Your task to perform on an android device: See recent photos Image 0: 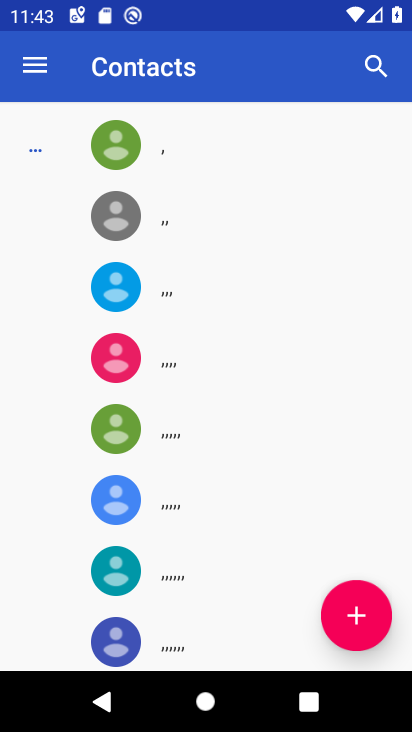
Step 0: press home button
Your task to perform on an android device: See recent photos Image 1: 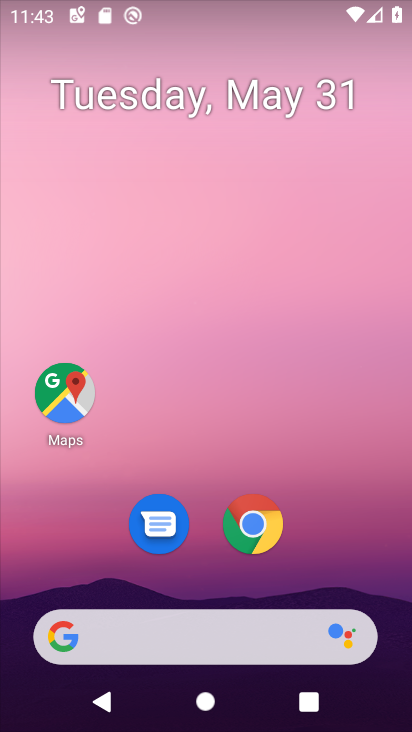
Step 1: drag from (334, 539) to (253, 76)
Your task to perform on an android device: See recent photos Image 2: 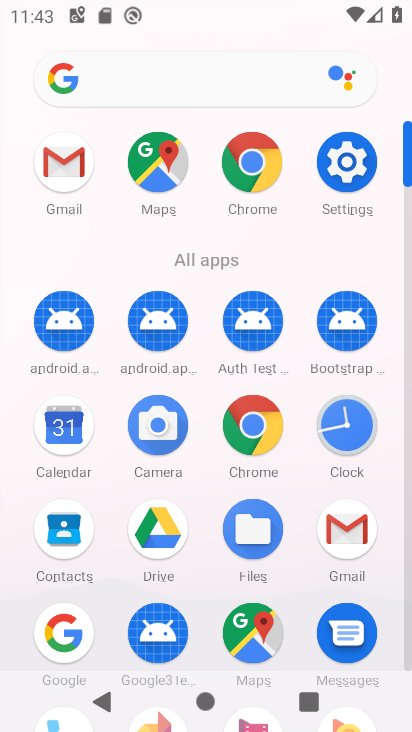
Step 2: drag from (218, 495) to (221, 235)
Your task to perform on an android device: See recent photos Image 3: 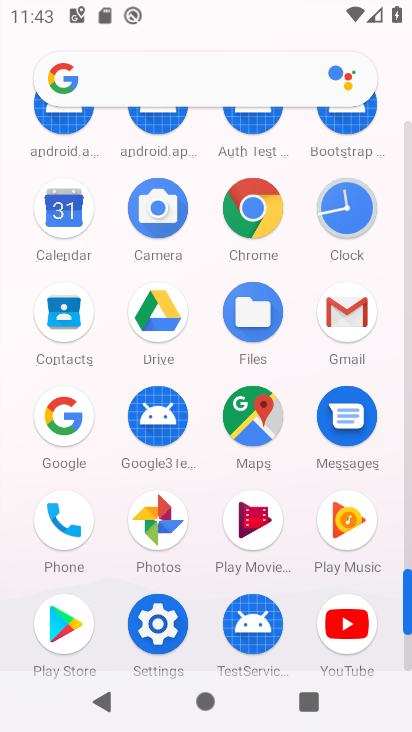
Step 3: click (168, 511)
Your task to perform on an android device: See recent photos Image 4: 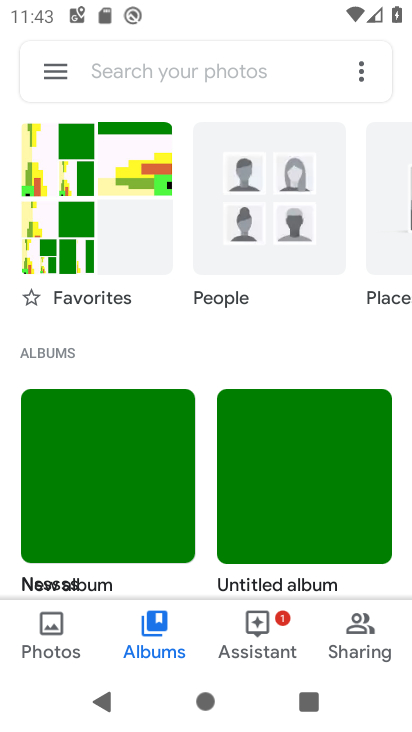
Step 4: click (61, 635)
Your task to perform on an android device: See recent photos Image 5: 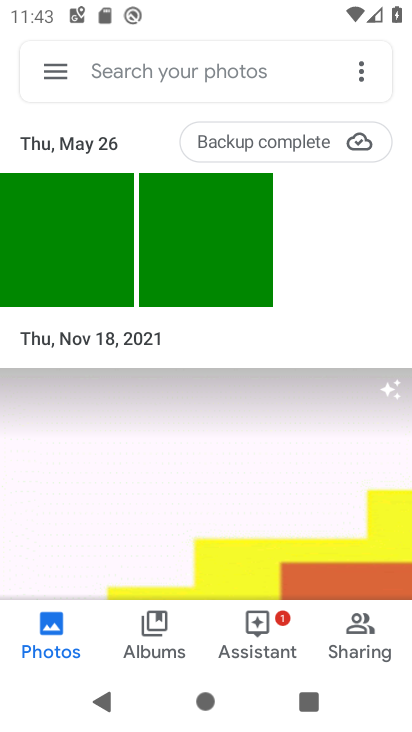
Step 5: task complete